Your task to perform on an android device: Show me the alarms in the clock app Image 0: 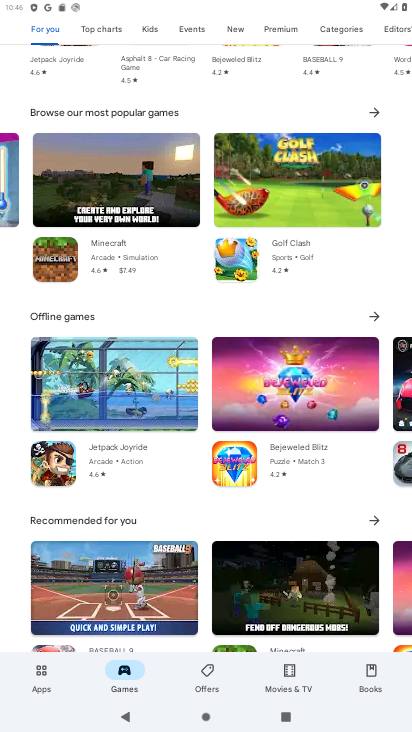
Step 0: press home button
Your task to perform on an android device: Show me the alarms in the clock app Image 1: 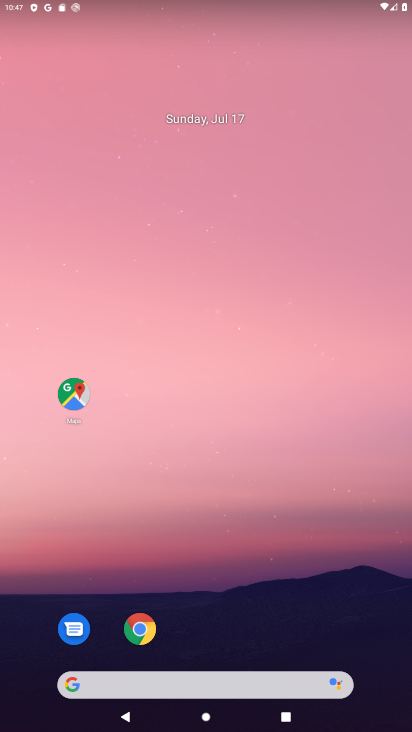
Step 1: drag from (221, 578) to (329, 217)
Your task to perform on an android device: Show me the alarms in the clock app Image 2: 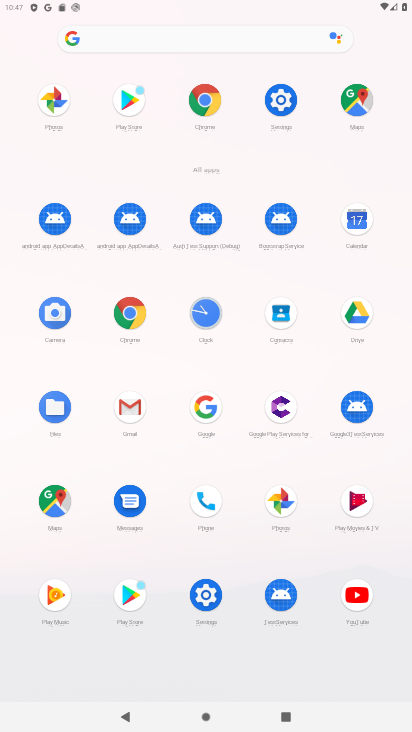
Step 2: click (199, 318)
Your task to perform on an android device: Show me the alarms in the clock app Image 3: 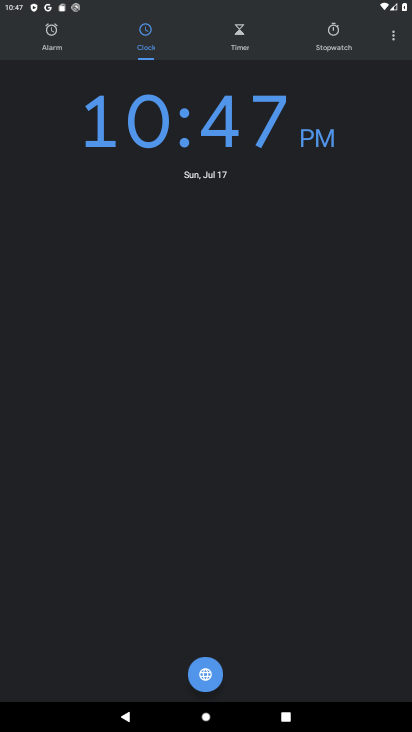
Step 3: click (45, 48)
Your task to perform on an android device: Show me the alarms in the clock app Image 4: 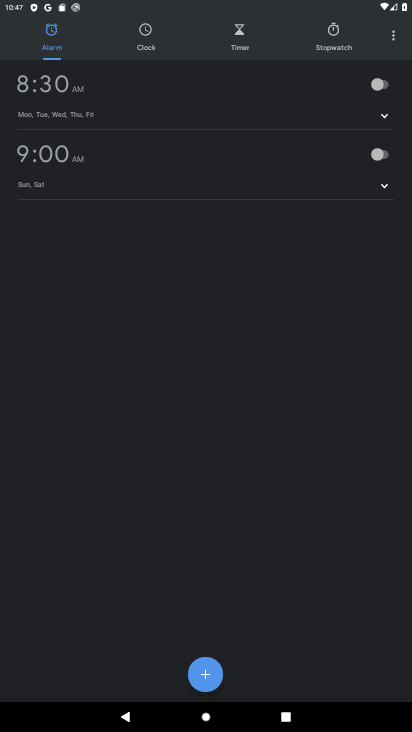
Step 4: task complete